Your task to perform on an android device: Open internet settings Image 0: 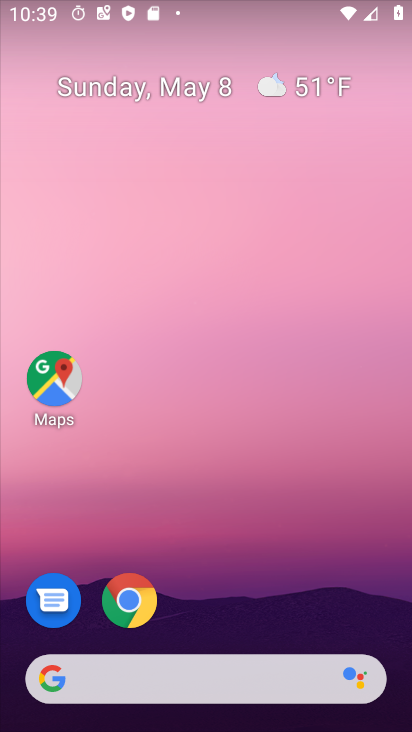
Step 0: drag from (243, 574) to (169, 0)
Your task to perform on an android device: Open internet settings Image 1: 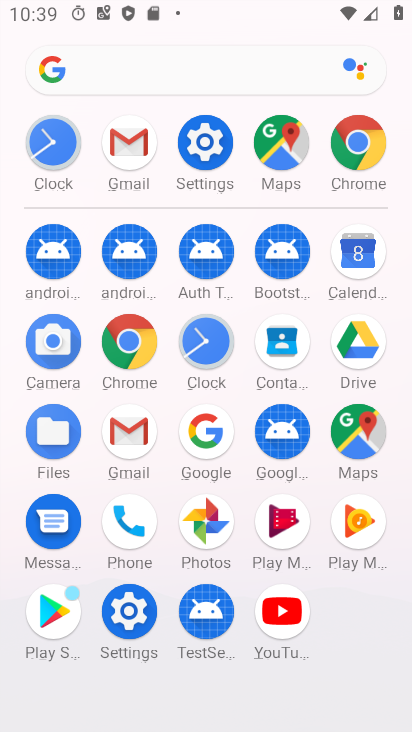
Step 1: click (201, 136)
Your task to perform on an android device: Open internet settings Image 2: 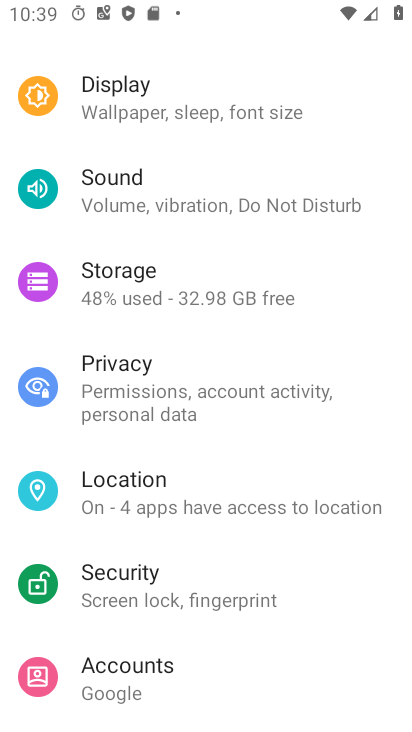
Step 2: drag from (273, 158) to (269, 618)
Your task to perform on an android device: Open internet settings Image 3: 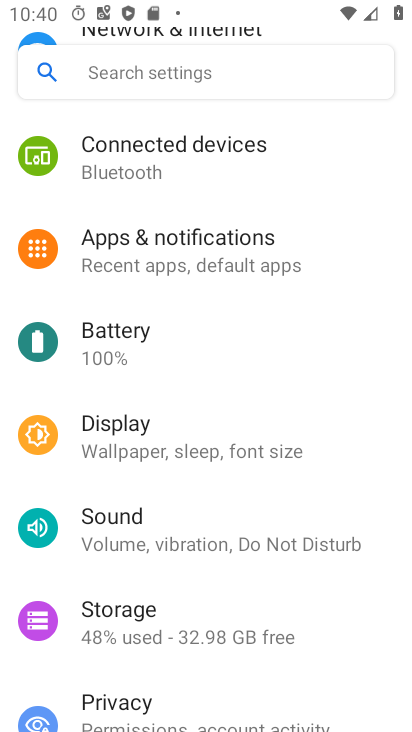
Step 3: drag from (243, 274) to (264, 565)
Your task to perform on an android device: Open internet settings Image 4: 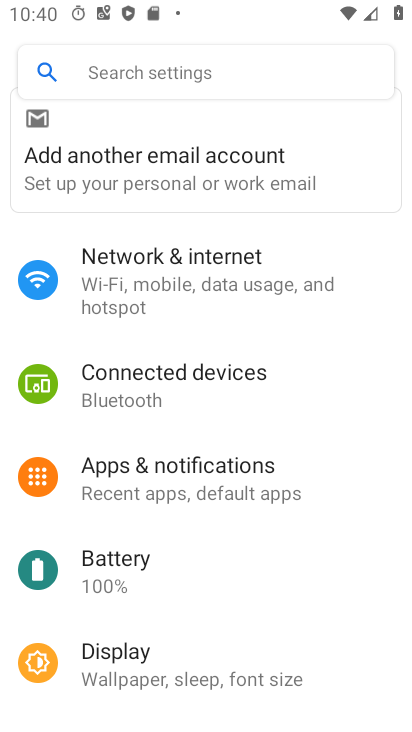
Step 4: click (206, 255)
Your task to perform on an android device: Open internet settings Image 5: 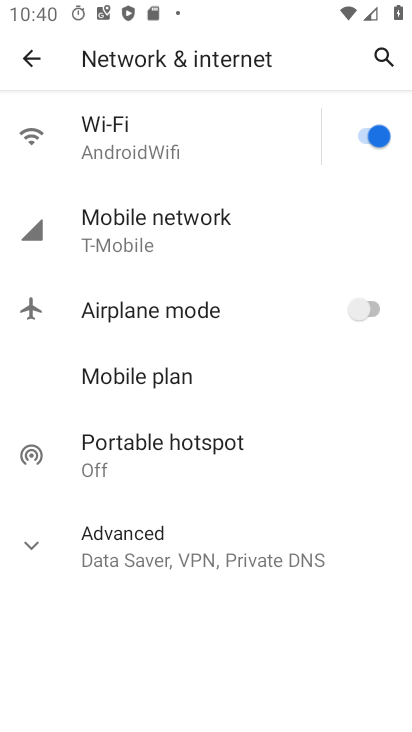
Step 5: click (43, 547)
Your task to perform on an android device: Open internet settings Image 6: 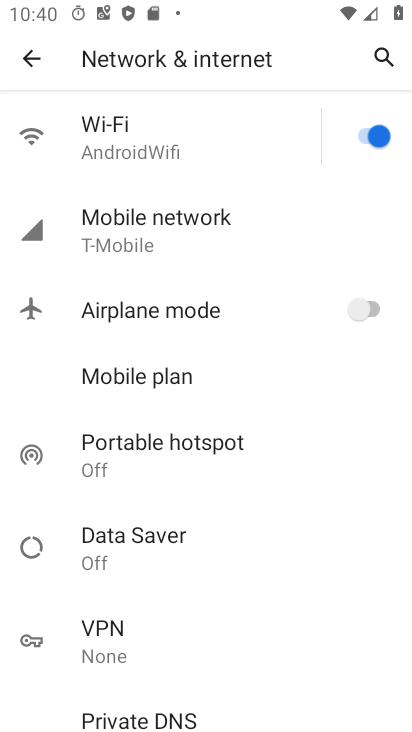
Step 6: task complete